Your task to perform on an android device: turn smart compose on in the gmail app Image 0: 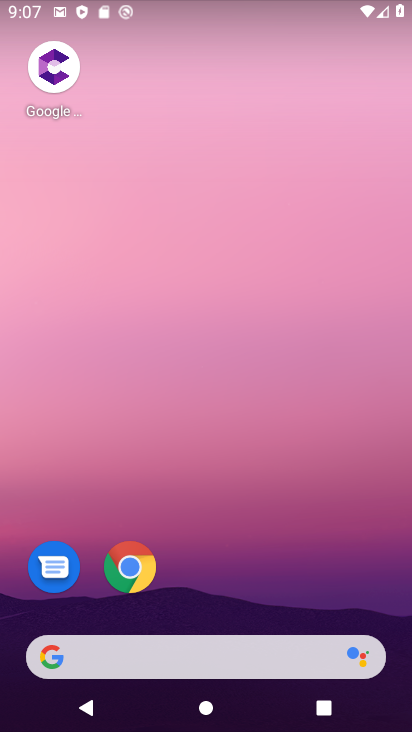
Step 0: drag from (195, 727) to (157, 342)
Your task to perform on an android device: turn smart compose on in the gmail app Image 1: 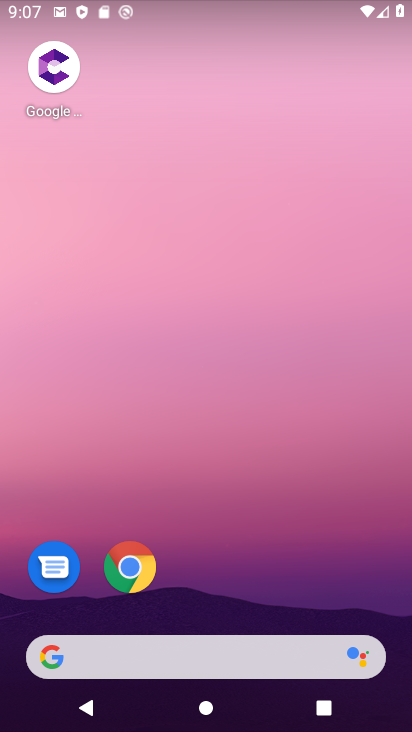
Step 1: drag from (217, 727) to (218, 316)
Your task to perform on an android device: turn smart compose on in the gmail app Image 2: 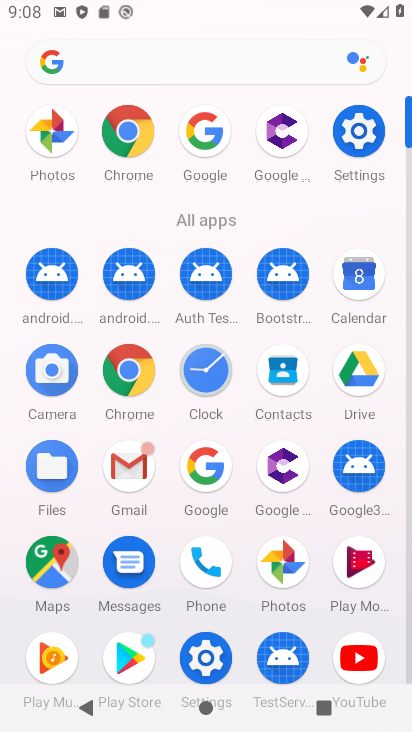
Step 2: click (128, 467)
Your task to perform on an android device: turn smart compose on in the gmail app Image 3: 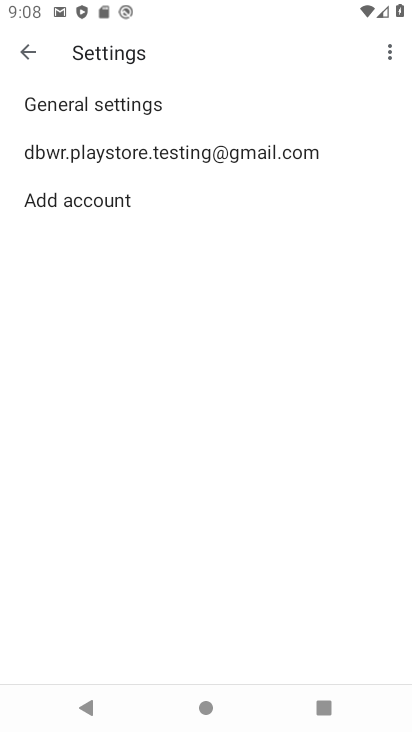
Step 3: click (165, 147)
Your task to perform on an android device: turn smart compose on in the gmail app Image 4: 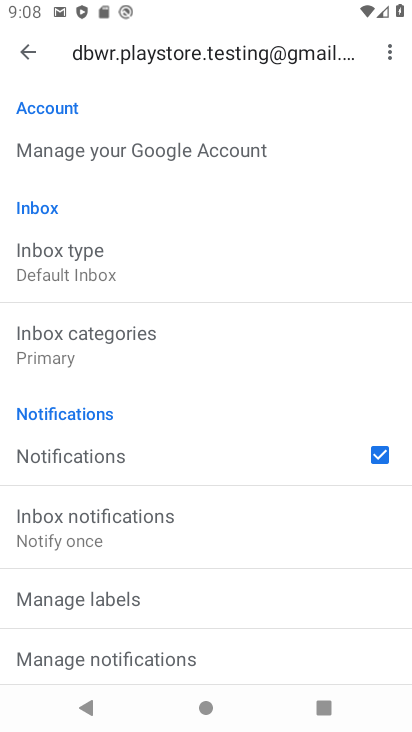
Step 4: task complete